Your task to perform on an android device: turn on the 12-hour format for clock Image 0: 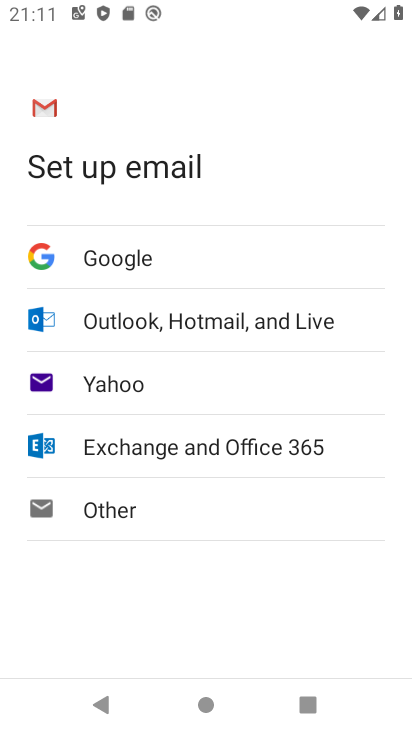
Step 0: press home button
Your task to perform on an android device: turn on the 12-hour format for clock Image 1: 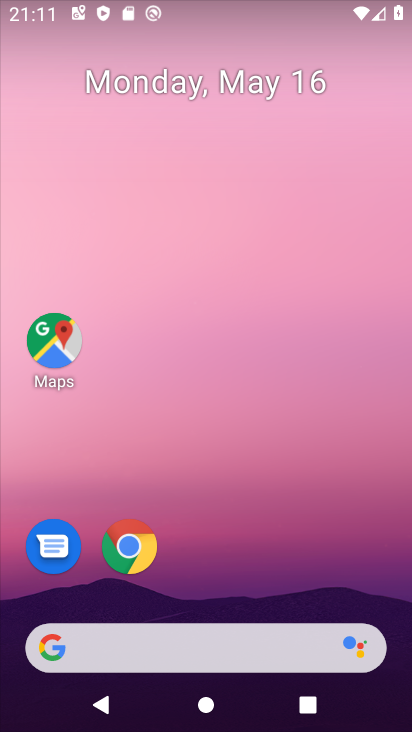
Step 1: drag from (230, 693) to (287, 231)
Your task to perform on an android device: turn on the 12-hour format for clock Image 2: 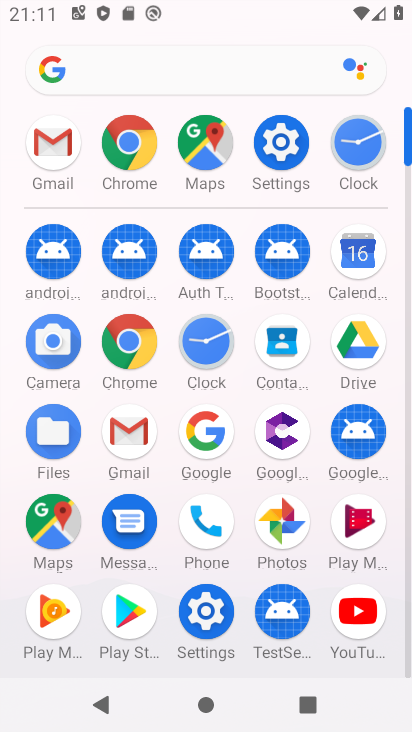
Step 2: click (203, 338)
Your task to perform on an android device: turn on the 12-hour format for clock Image 3: 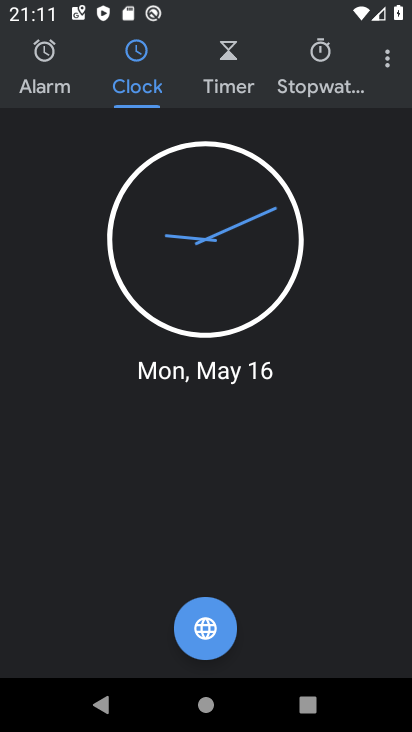
Step 3: click (388, 68)
Your task to perform on an android device: turn on the 12-hour format for clock Image 4: 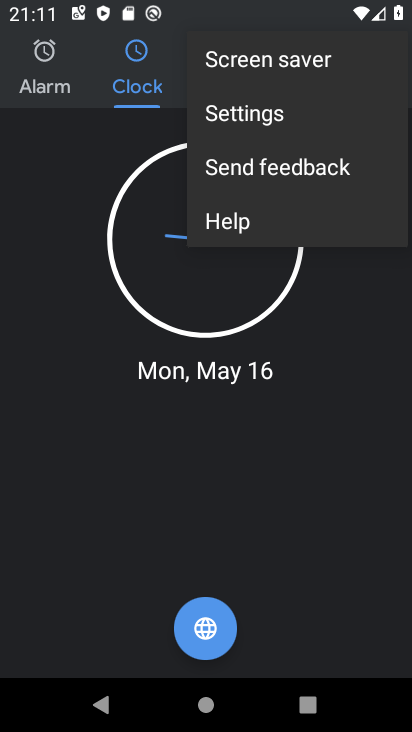
Step 4: click (250, 125)
Your task to perform on an android device: turn on the 12-hour format for clock Image 5: 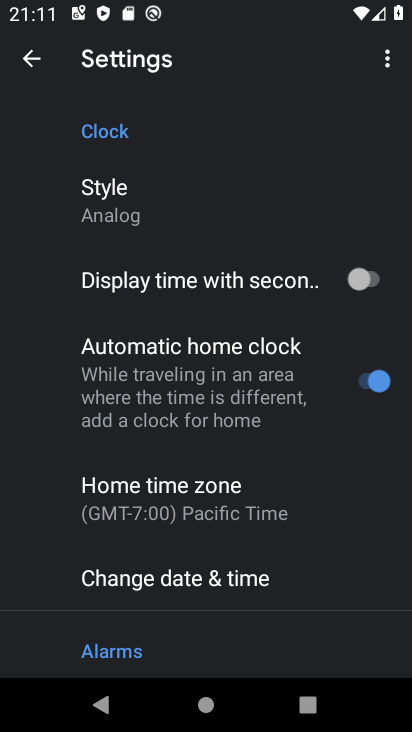
Step 5: click (197, 577)
Your task to perform on an android device: turn on the 12-hour format for clock Image 6: 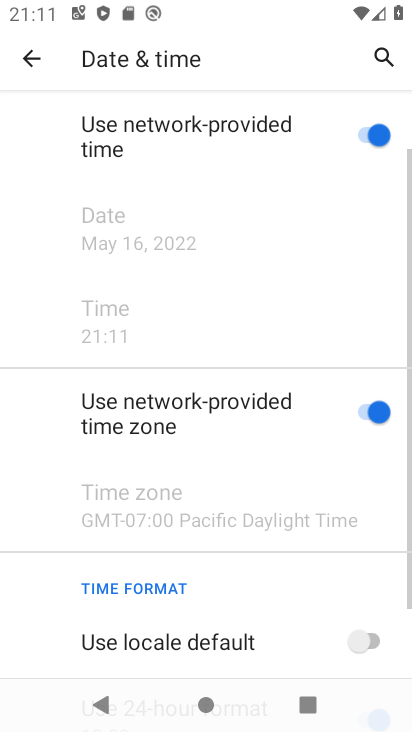
Step 6: drag from (301, 596) to (359, 357)
Your task to perform on an android device: turn on the 12-hour format for clock Image 7: 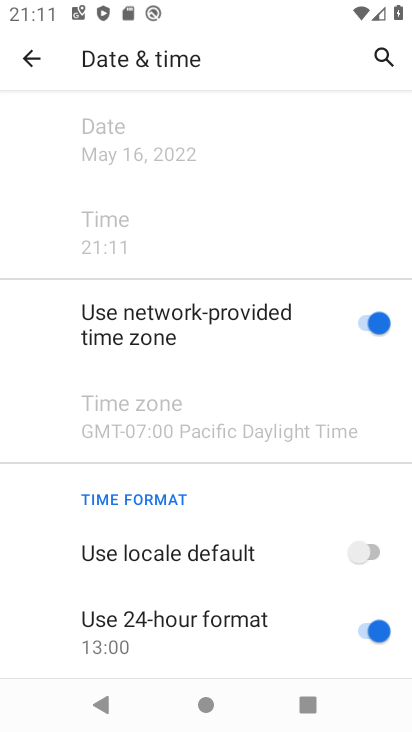
Step 7: click (360, 624)
Your task to perform on an android device: turn on the 12-hour format for clock Image 8: 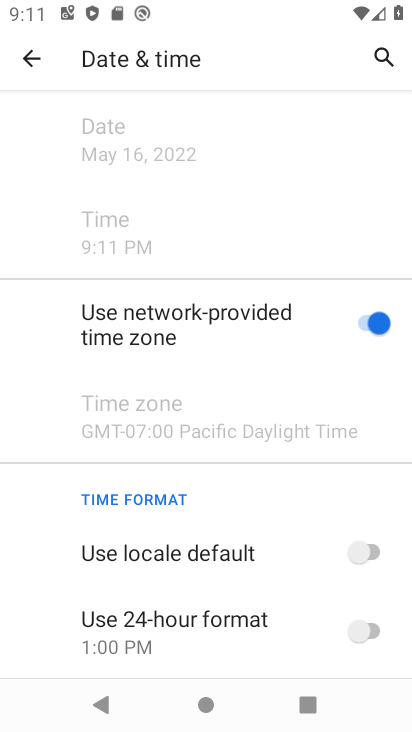
Step 8: task complete